Your task to perform on an android device: change the clock display to show seconds Image 0: 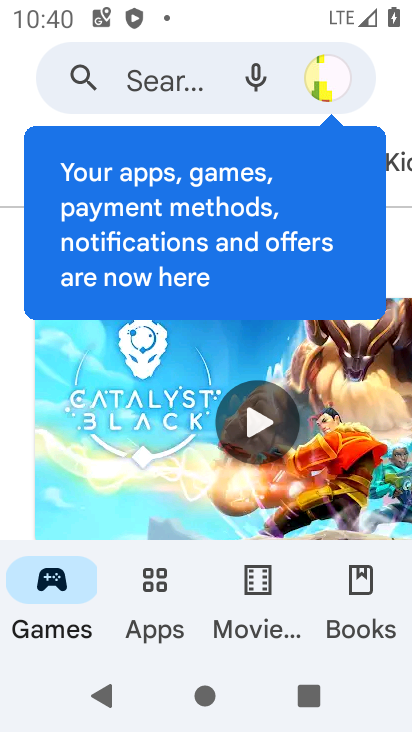
Step 0: press home button
Your task to perform on an android device: change the clock display to show seconds Image 1: 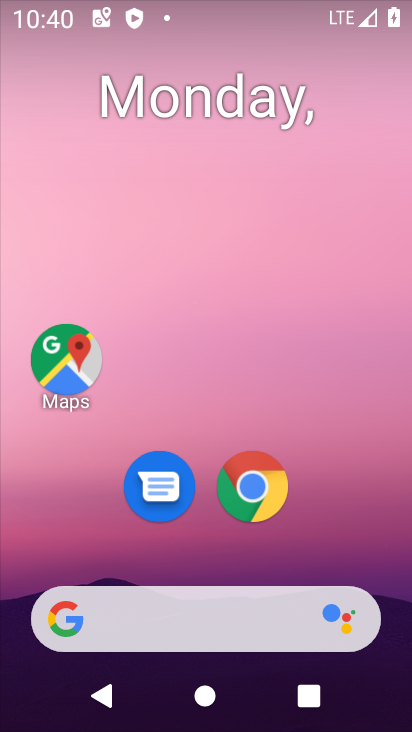
Step 1: drag from (247, 722) to (239, 136)
Your task to perform on an android device: change the clock display to show seconds Image 2: 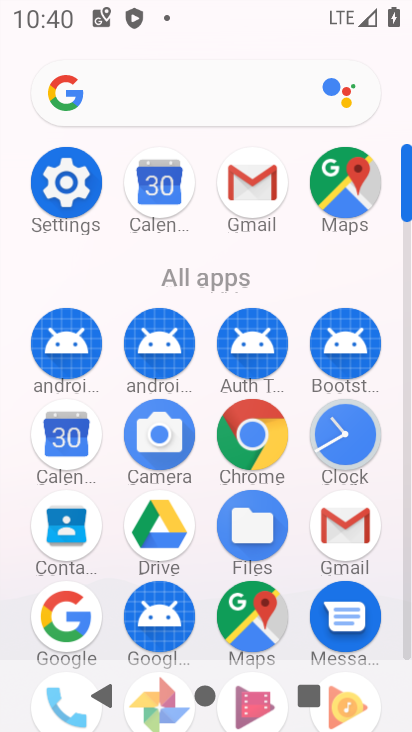
Step 2: click (351, 440)
Your task to perform on an android device: change the clock display to show seconds Image 3: 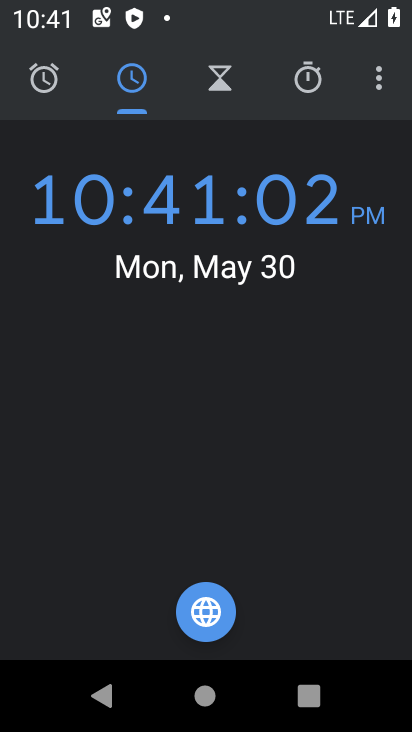
Step 3: click (385, 87)
Your task to perform on an android device: change the clock display to show seconds Image 4: 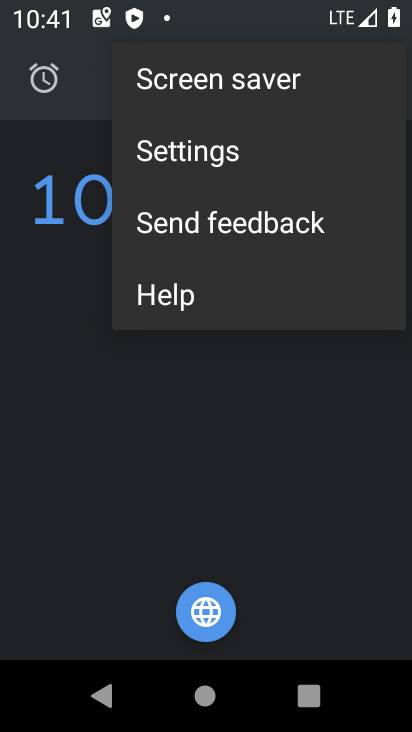
Step 4: click (244, 156)
Your task to perform on an android device: change the clock display to show seconds Image 5: 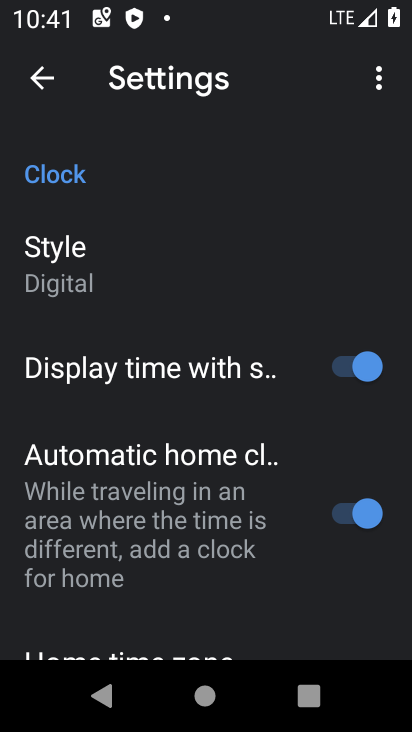
Step 5: task complete